Your task to perform on an android device: add a label to a message in the gmail app Image 0: 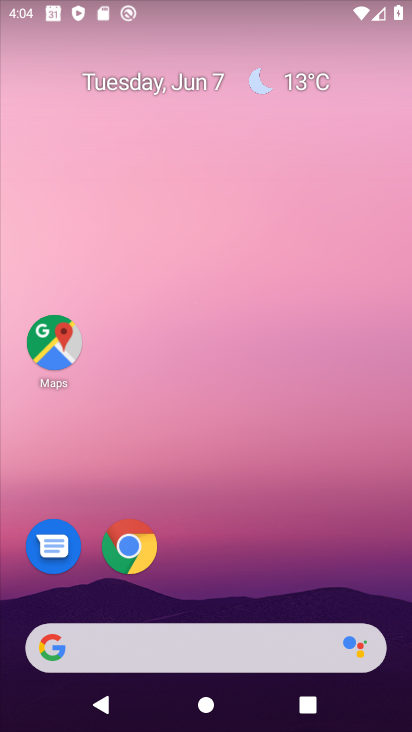
Step 0: drag from (193, 573) to (291, 107)
Your task to perform on an android device: add a label to a message in the gmail app Image 1: 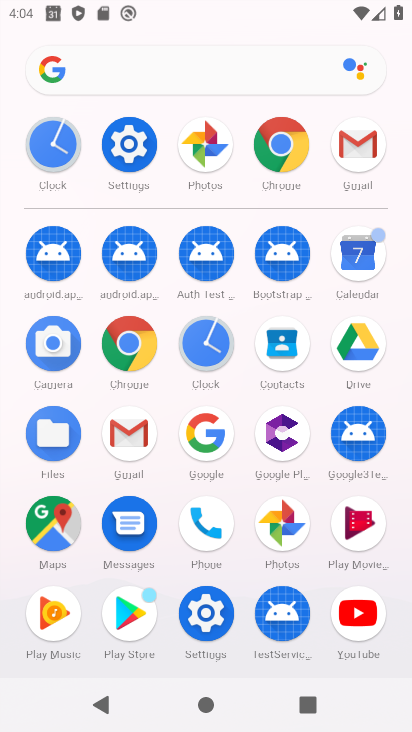
Step 1: click (378, 140)
Your task to perform on an android device: add a label to a message in the gmail app Image 2: 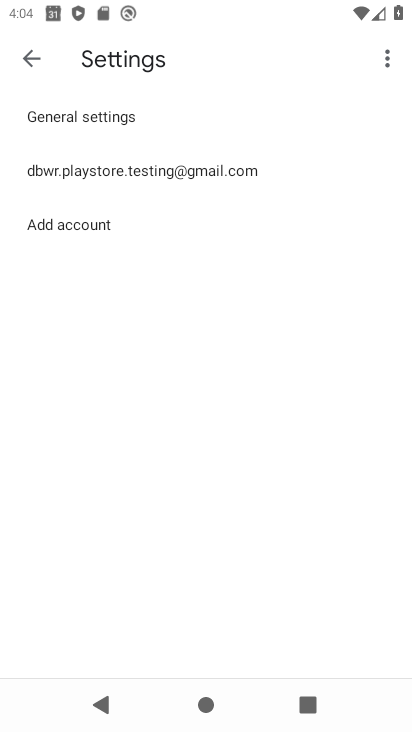
Step 2: click (34, 48)
Your task to perform on an android device: add a label to a message in the gmail app Image 3: 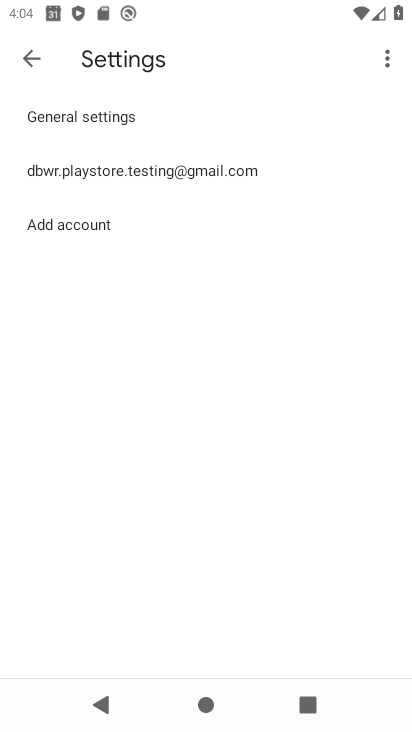
Step 3: click (34, 48)
Your task to perform on an android device: add a label to a message in the gmail app Image 4: 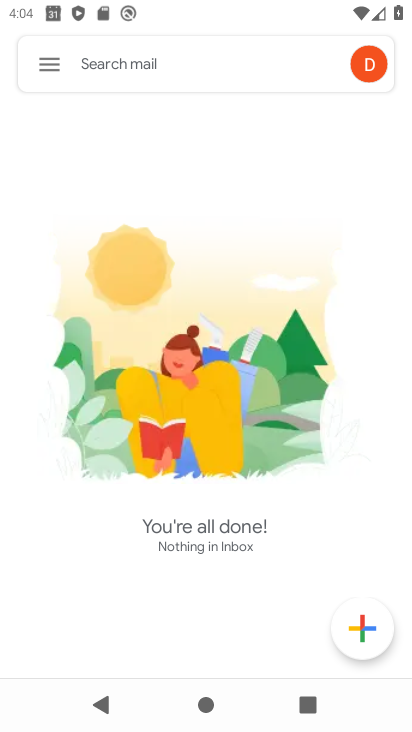
Step 4: task complete